Your task to perform on an android device: turn on location history Image 0: 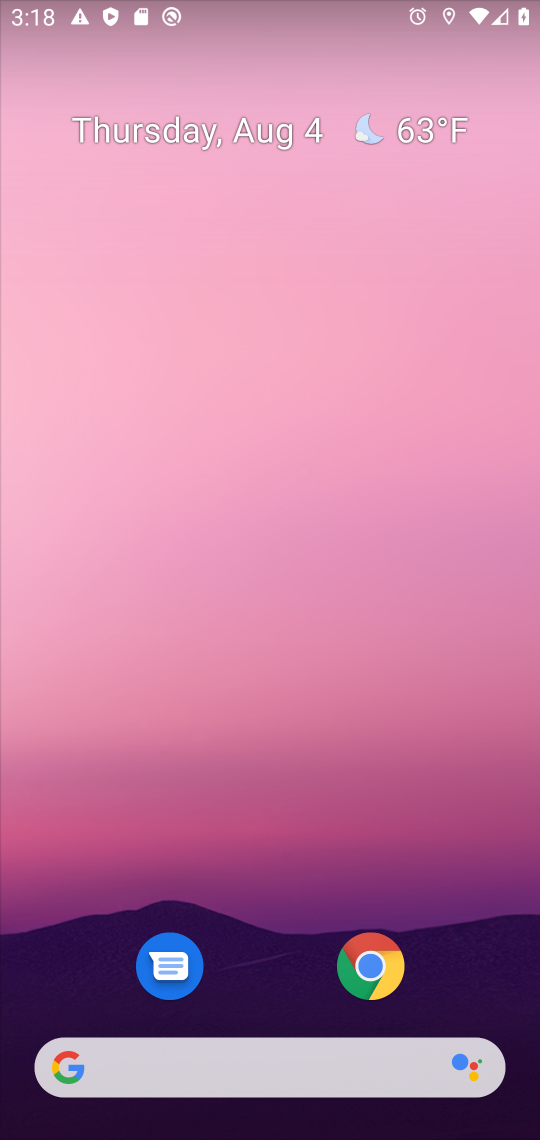
Step 0: drag from (261, 997) to (428, 244)
Your task to perform on an android device: turn on location history Image 1: 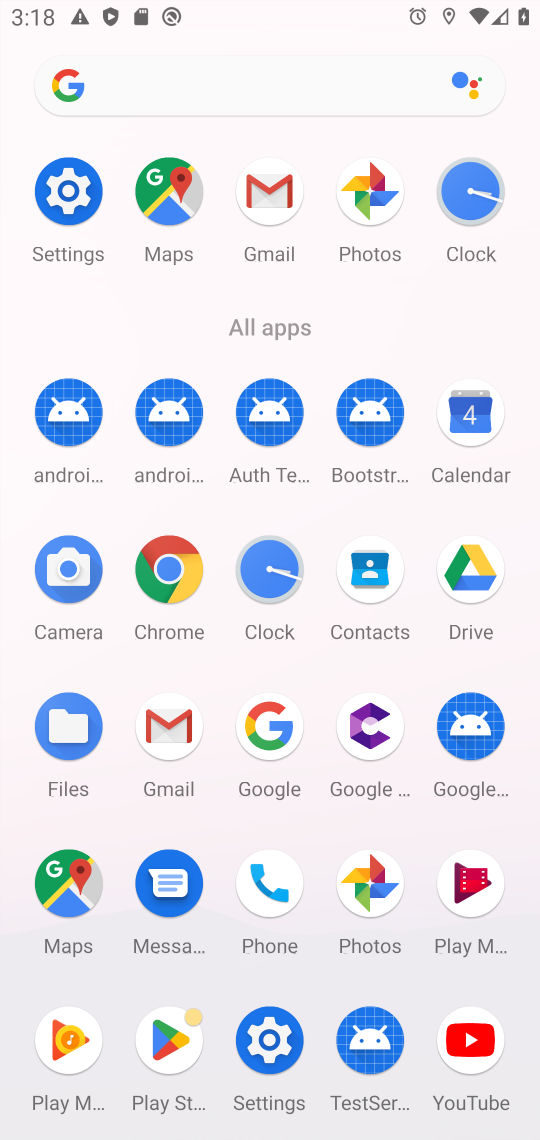
Step 1: click (47, 180)
Your task to perform on an android device: turn on location history Image 2: 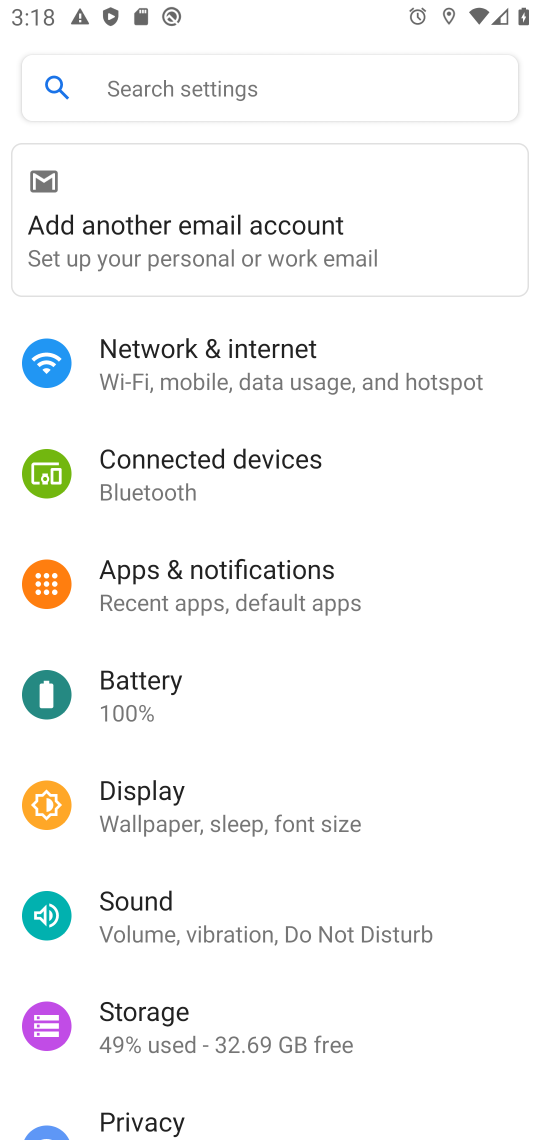
Step 2: drag from (414, 1027) to (407, 348)
Your task to perform on an android device: turn on location history Image 3: 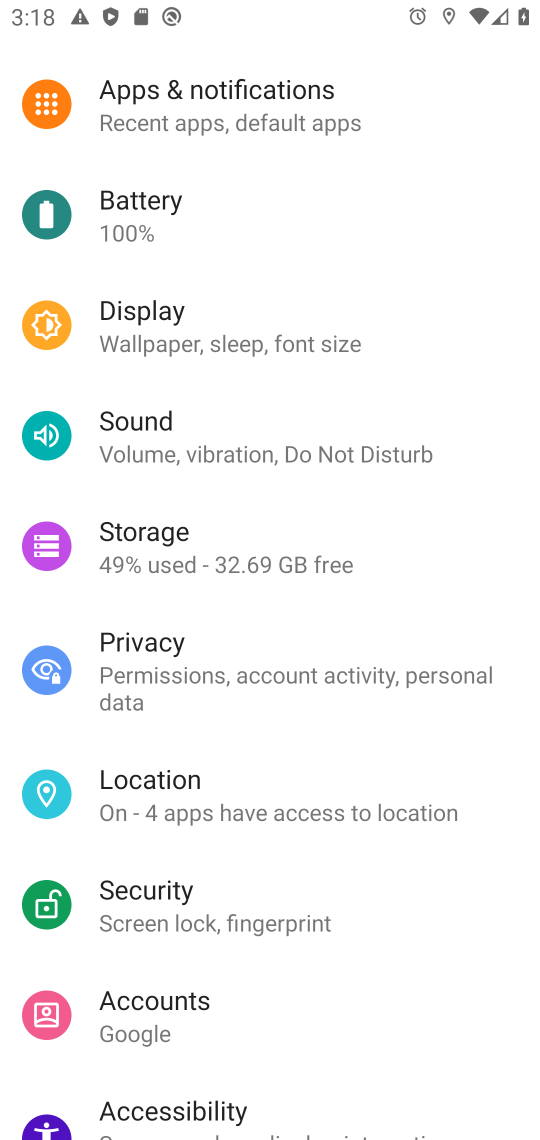
Step 3: click (154, 800)
Your task to perform on an android device: turn on location history Image 4: 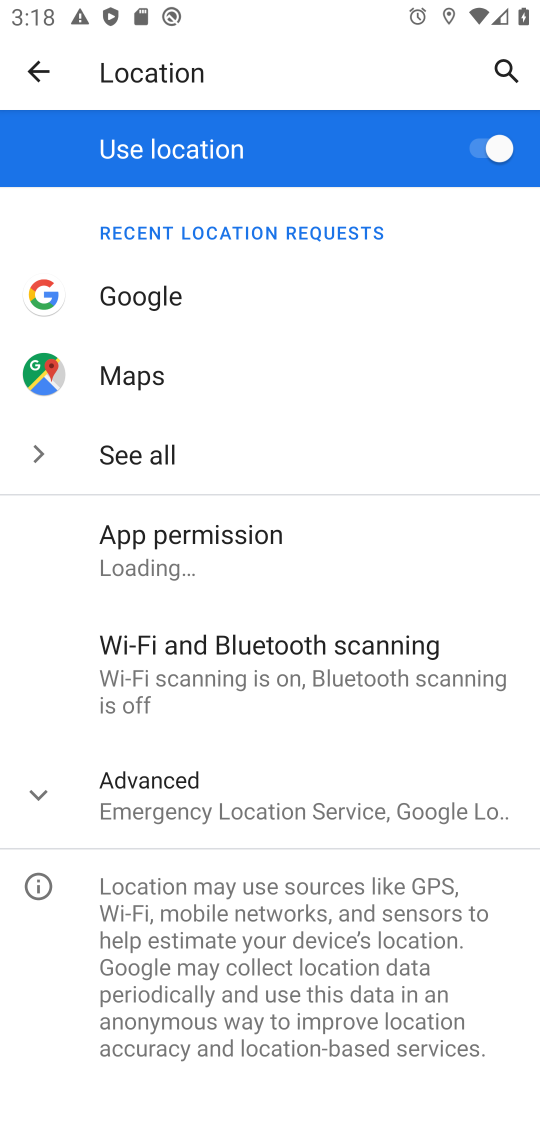
Step 4: click (189, 810)
Your task to perform on an android device: turn on location history Image 5: 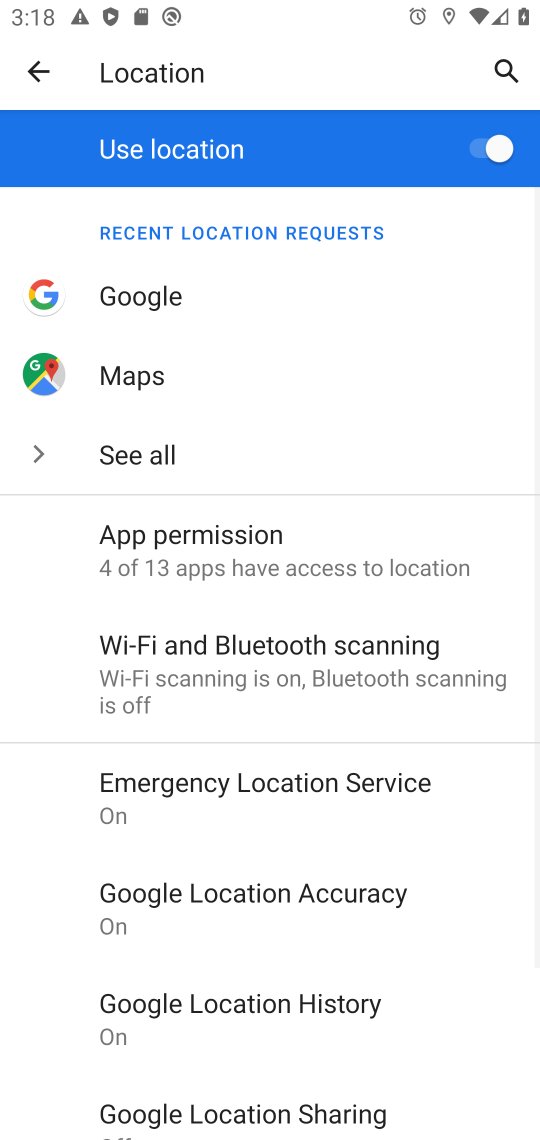
Step 5: click (196, 1016)
Your task to perform on an android device: turn on location history Image 6: 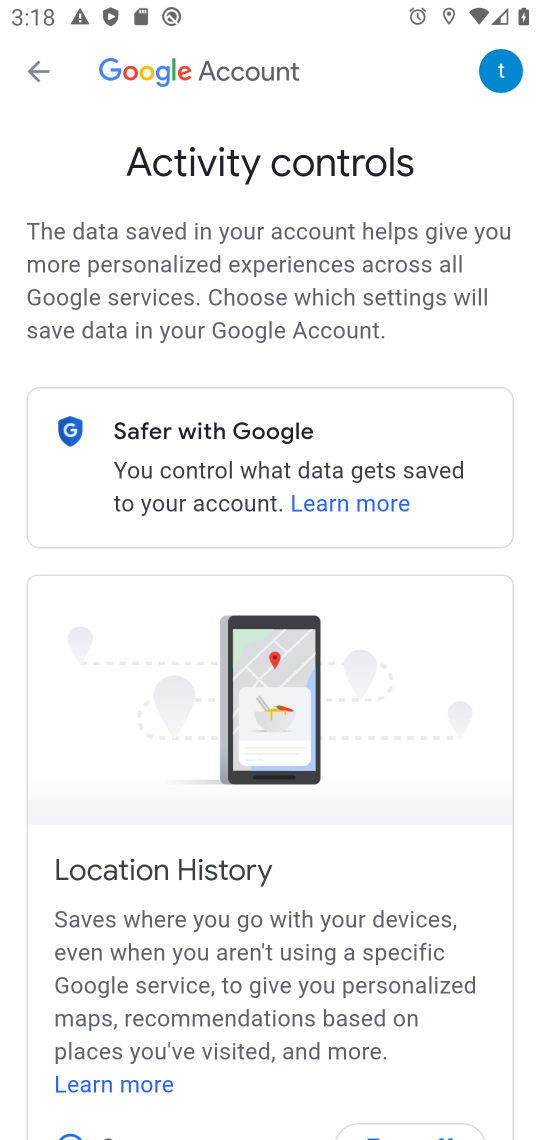
Step 6: task complete